Your task to perform on an android device: turn on javascript in the chrome app Image 0: 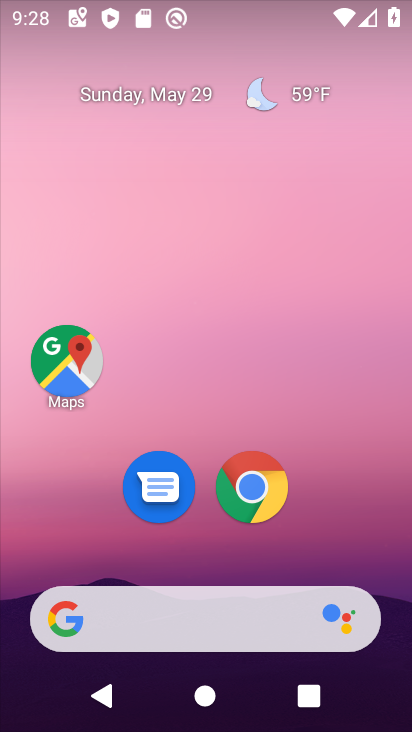
Step 0: click (238, 501)
Your task to perform on an android device: turn on javascript in the chrome app Image 1: 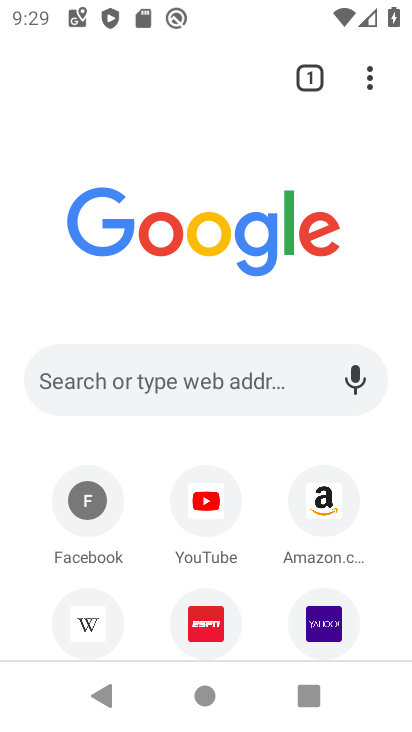
Step 1: click (372, 83)
Your task to perform on an android device: turn on javascript in the chrome app Image 2: 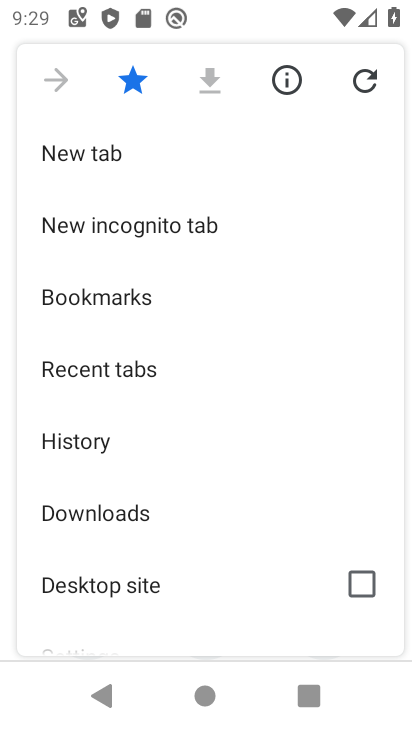
Step 2: drag from (121, 603) to (134, 158)
Your task to perform on an android device: turn on javascript in the chrome app Image 3: 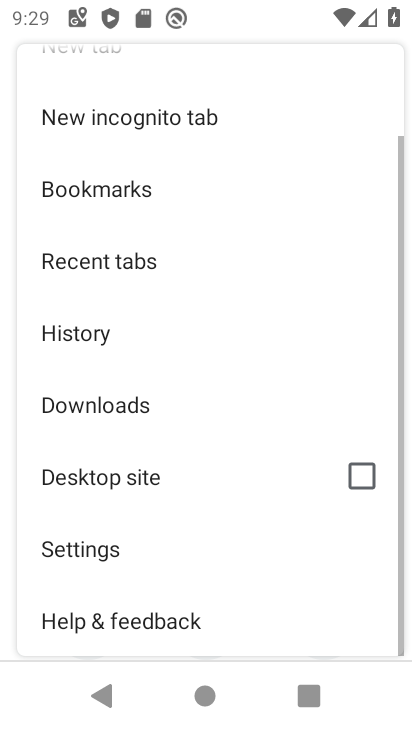
Step 3: click (83, 553)
Your task to perform on an android device: turn on javascript in the chrome app Image 4: 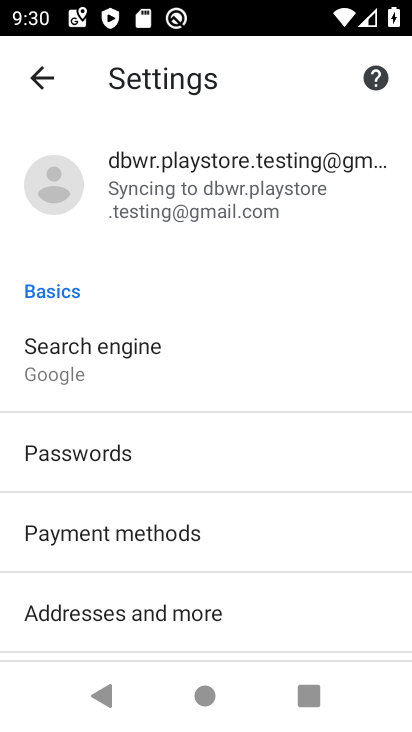
Step 4: drag from (231, 575) to (278, 156)
Your task to perform on an android device: turn on javascript in the chrome app Image 5: 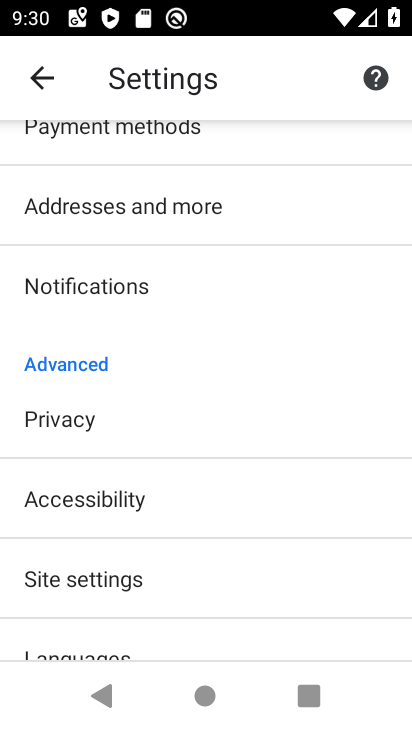
Step 5: click (123, 581)
Your task to perform on an android device: turn on javascript in the chrome app Image 6: 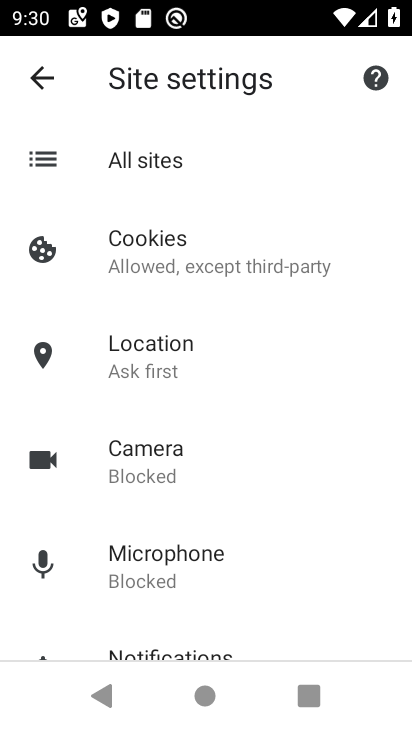
Step 6: drag from (249, 586) to (242, 244)
Your task to perform on an android device: turn on javascript in the chrome app Image 7: 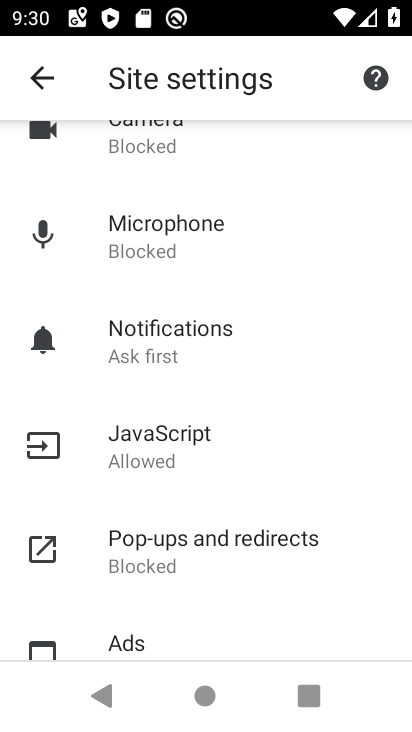
Step 7: click (154, 452)
Your task to perform on an android device: turn on javascript in the chrome app Image 8: 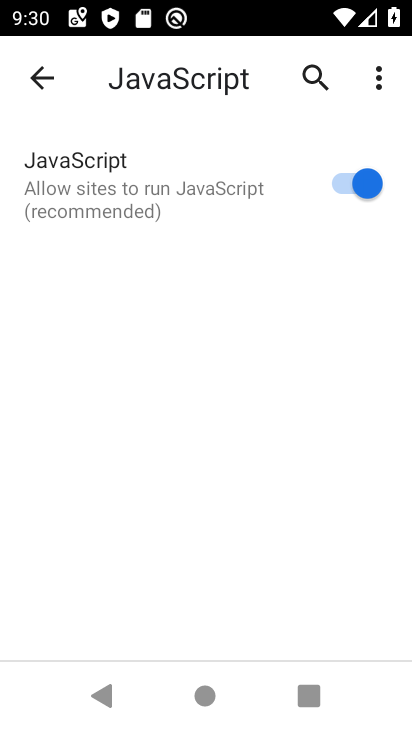
Step 8: task complete